Your task to perform on an android device: Go to notification settings Image 0: 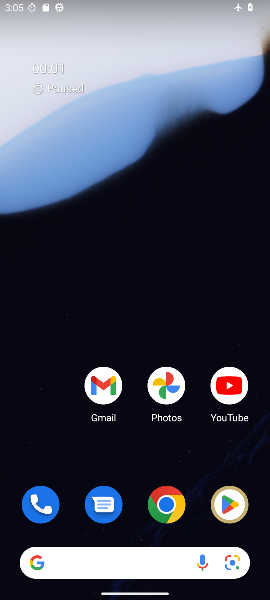
Step 0: drag from (140, 272) to (189, 105)
Your task to perform on an android device: Go to notification settings Image 1: 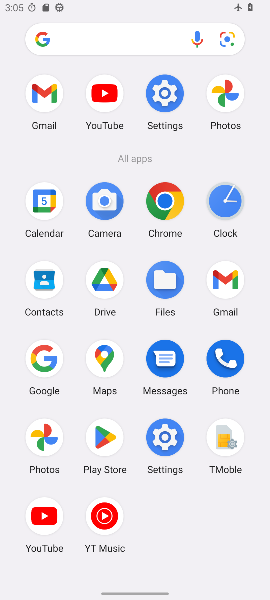
Step 1: click (20, 583)
Your task to perform on an android device: Go to notification settings Image 2: 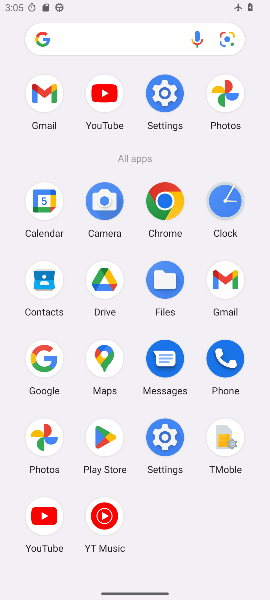
Step 2: click (165, 441)
Your task to perform on an android device: Go to notification settings Image 3: 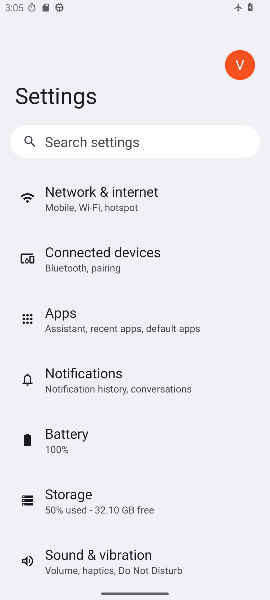
Step 3: click (79, 371)
Your task to perform on an android device: Go to notification settings Image 4: 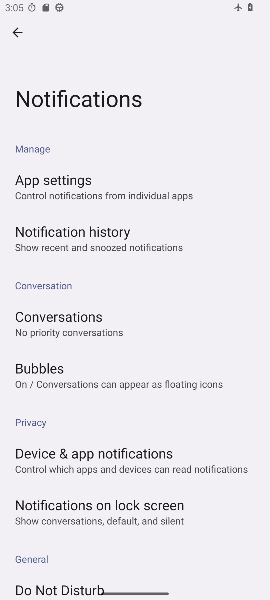
Step 4: task complete